Your task to perform on an android device: Show me productivity apps on the Play Store Image 0: 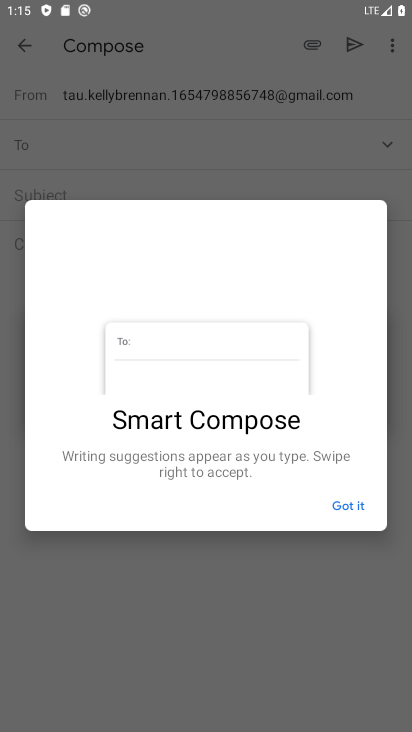
Step 0: press home button
Your task to perform on an android device: Show me productivity apps on the Play Store Image 1: 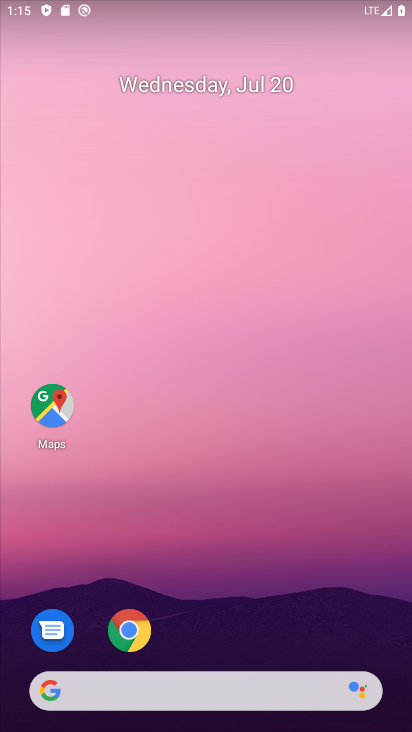
Step 1: drag from (267, 559) to (298, 68)
Your task to perform on an android device: Show me productivity apps on the Play Store Image 2: 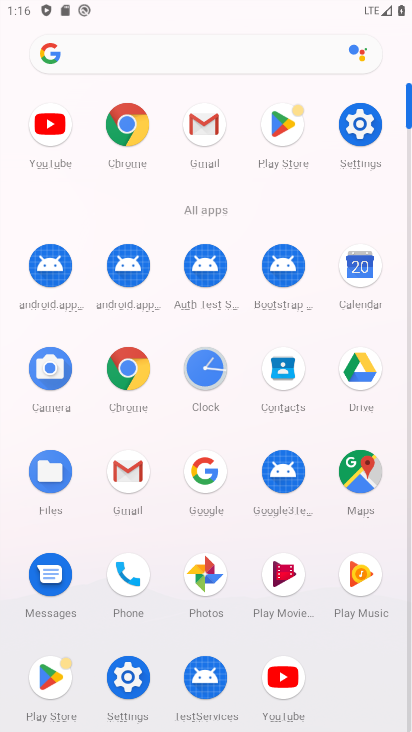
Step 2: click (53, 665)
Your task to perform on an android device: Show me productivity apps on the Play Store Image 3: 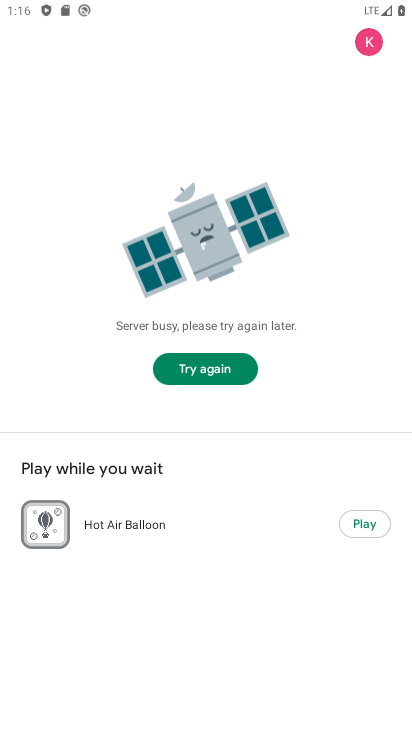
Step 3: task complete